Your task to perform on an android device: Open Google Chrome Image 0: 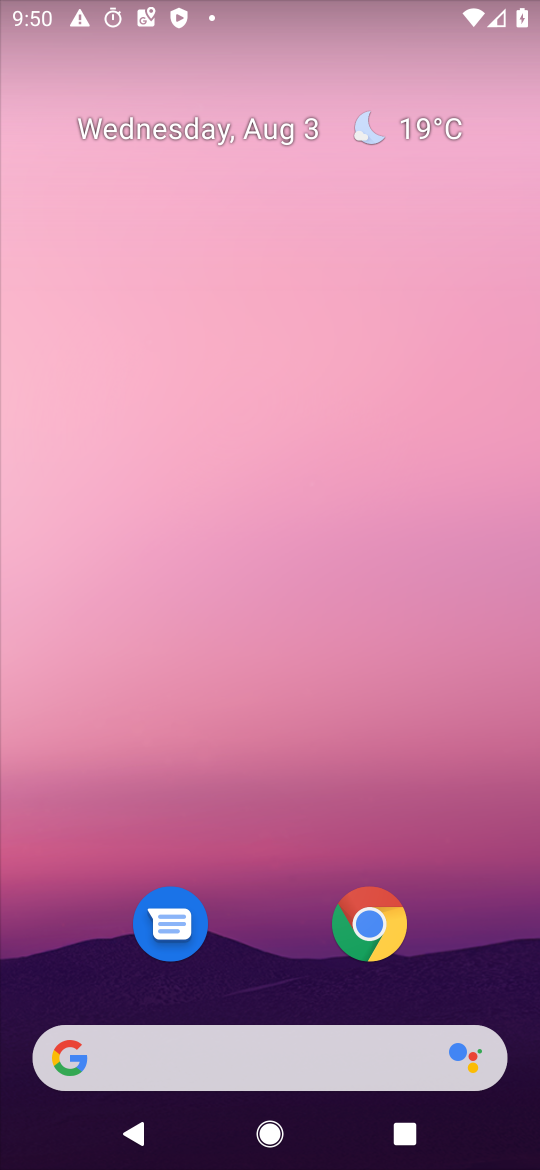
Step 0: press home button
Your task to perform on an android device: Open Google Chrome Image 1: 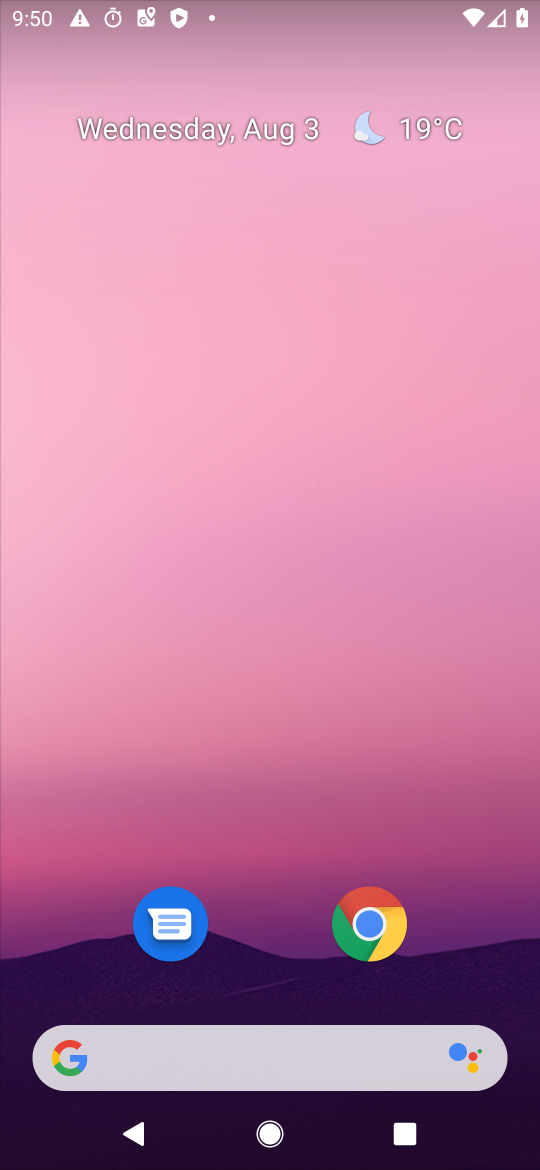
Step 1: click (361, 922)
Your task to perform on an android device: Open Google Chrome Image 2: 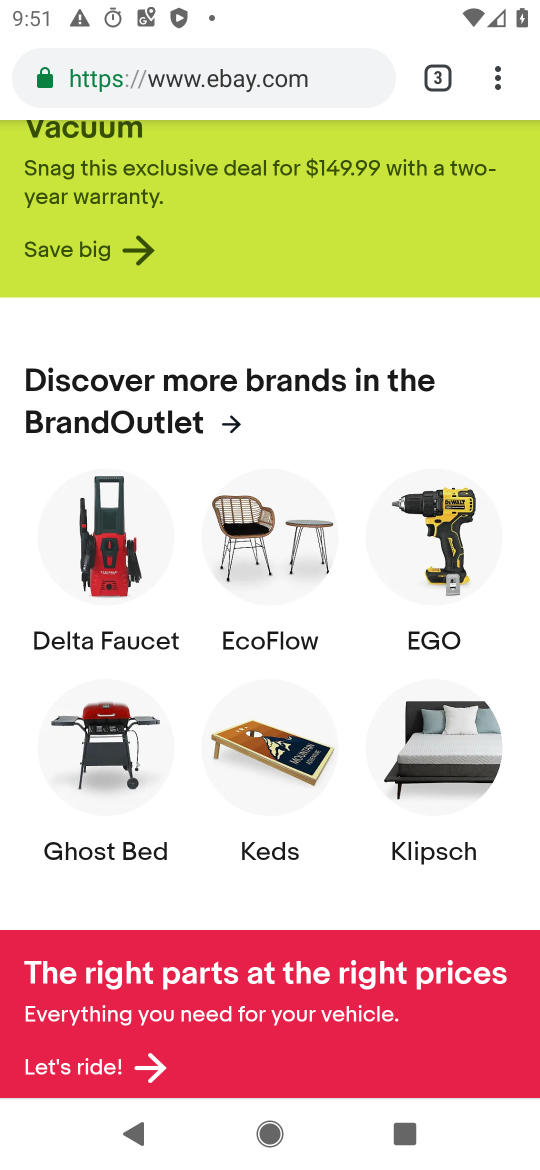
Step 2: click (433, 66)
Your task to perform on an android device: Open Google Chrome Image 3: 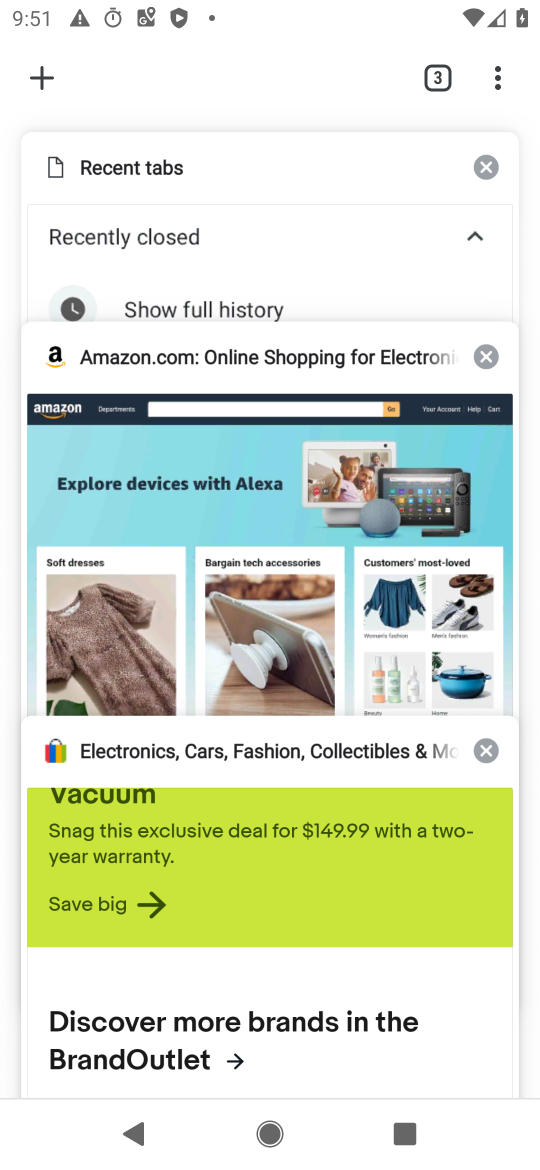
Step 3: click (51, 77)
Your task to perform on an android device: Open Google Chrome Image 4: 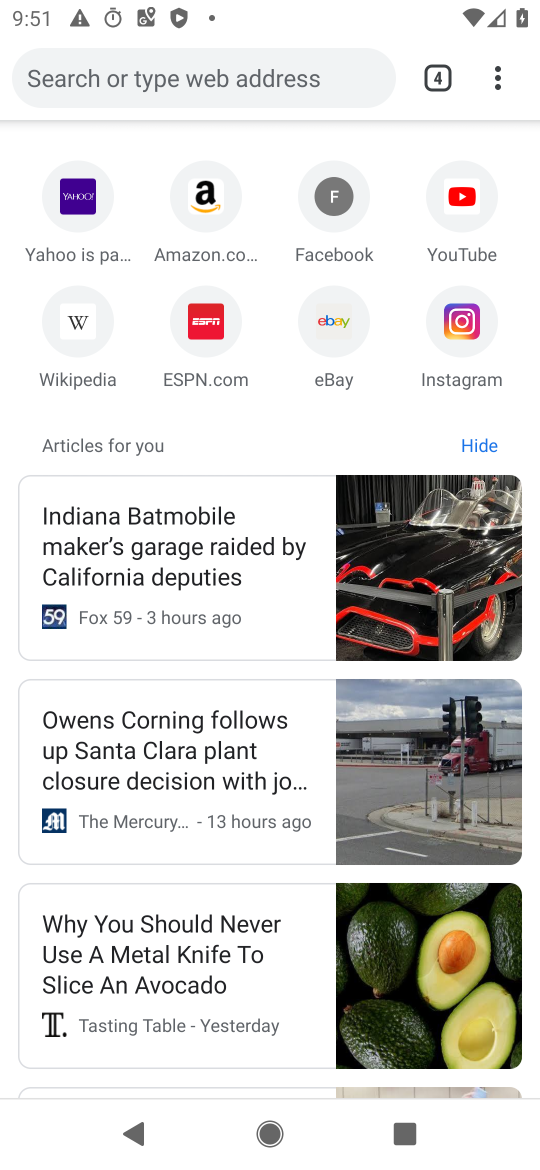
Step 4: task complete